Your task to perform on an android device: toggle wifi Image 0: 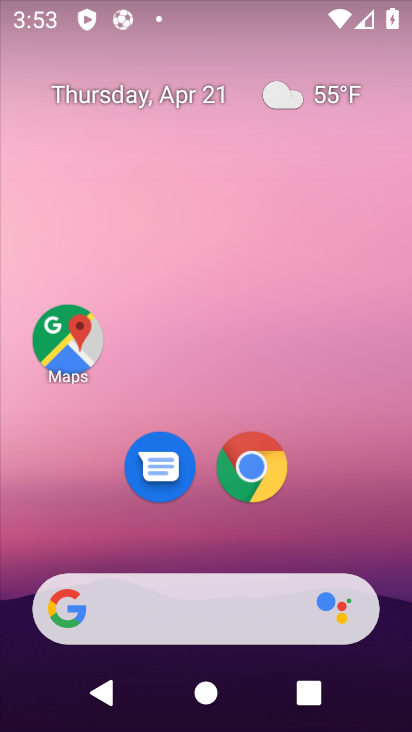
Step 0: drag from (297, 5) to (289, 447)
Your task to perform on an android device: toggle wifi Image 1: 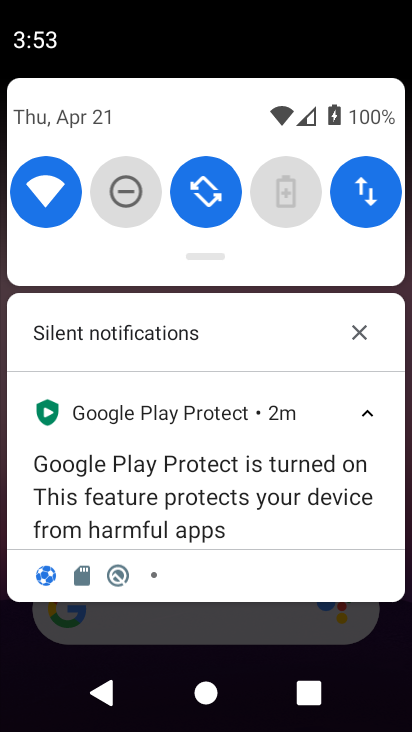
Step 1: click (62, 182)
Your task to perform on an android device: toggle wifi Image 2: 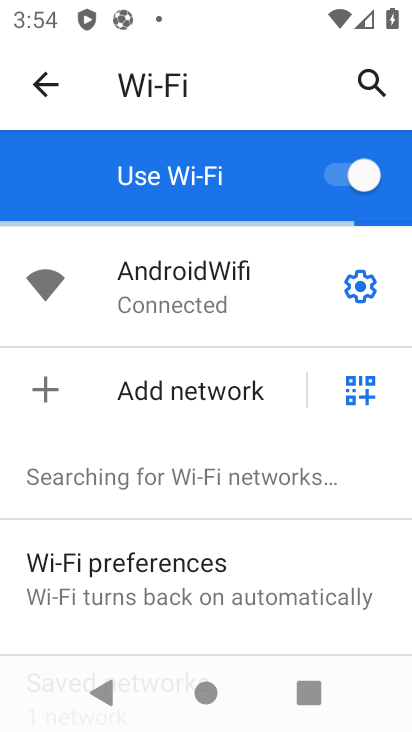
Step 2: click (359, 185)
Your task to perform on an android device: toggle wifi Image 3: 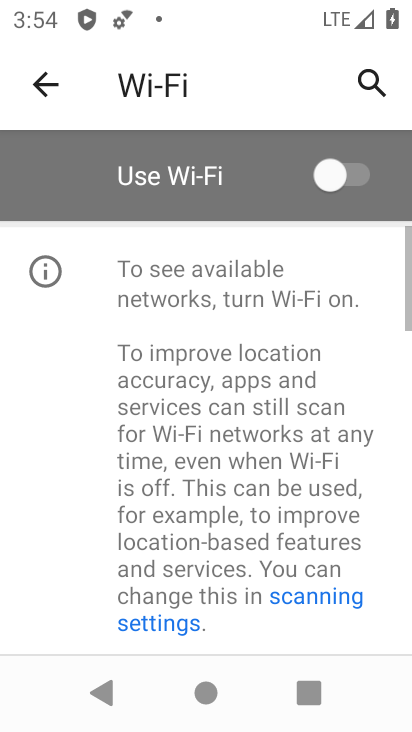
Step 3: click (336, 172)
Your task to perform on an android device: toggle wifi Image 4: 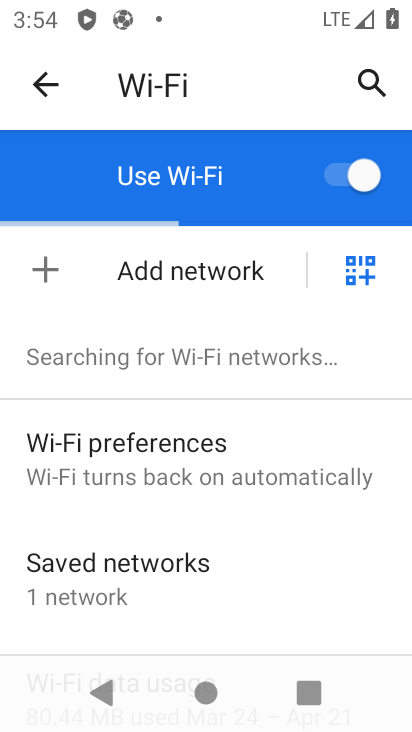
Step 4: task complete